Your task to perform on an android device: Open Yahoo.com Image 0: 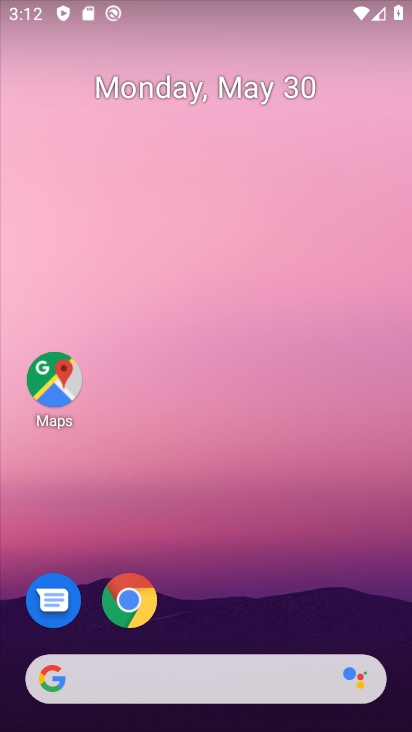
Step 0: click (135, 618)
Your task to perform on an android device: Open Yahoo.com Image 1: 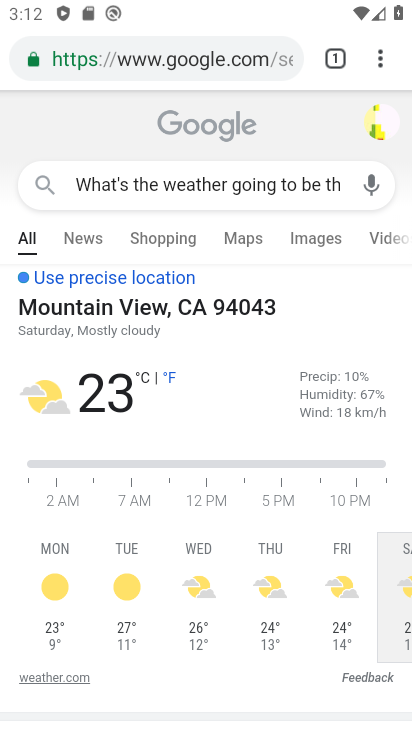
Step 1: click (153, 61)
Your task to perform on an android device: Open Yahoo.com Image 2: 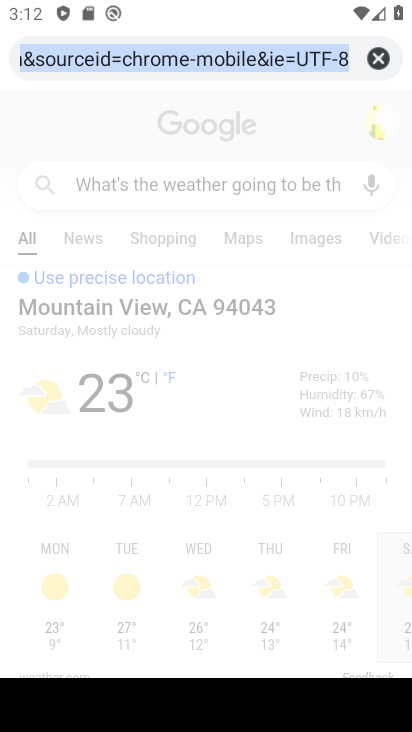
Step 2: type "yahoo.com"
Your task to perform on an android device: Open Yahoo.com Image 3: 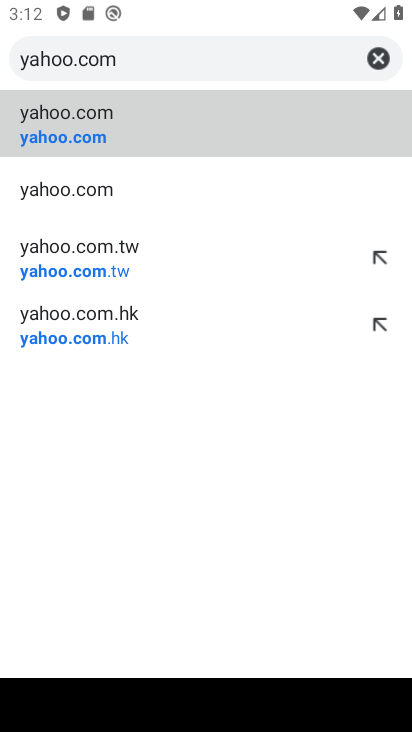
Step 3: click (64, 138)
Your task to perform on an android device: Open Yahoo.com Image 4: 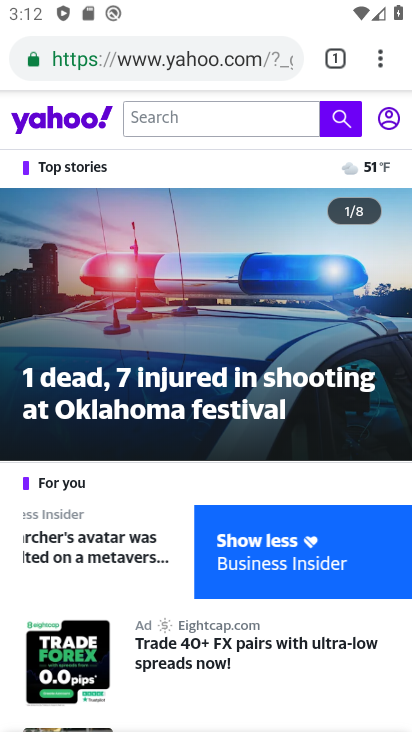
Step 4: task complete